Your task to perform on an android device: Search for sushi restaurants on Maps Image 0: 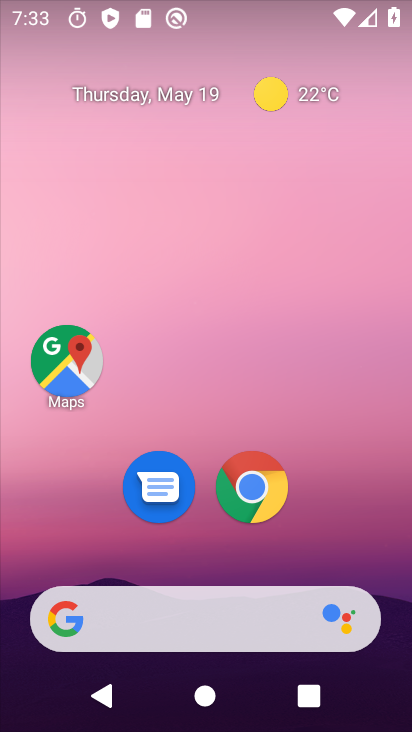
Step 0: press home button
Your task to perform on an android device: Search for sushi restaurants on Maps Image 1: 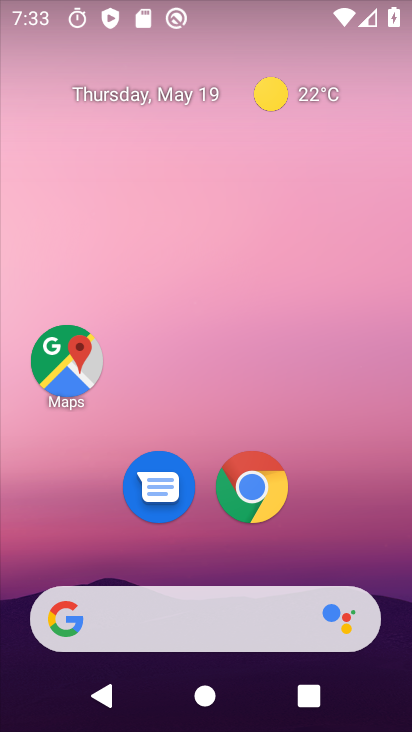
Step 1: click (62, 374)
Your task to perform on an android device: Search for sushi restaurants on Maps Image 2: 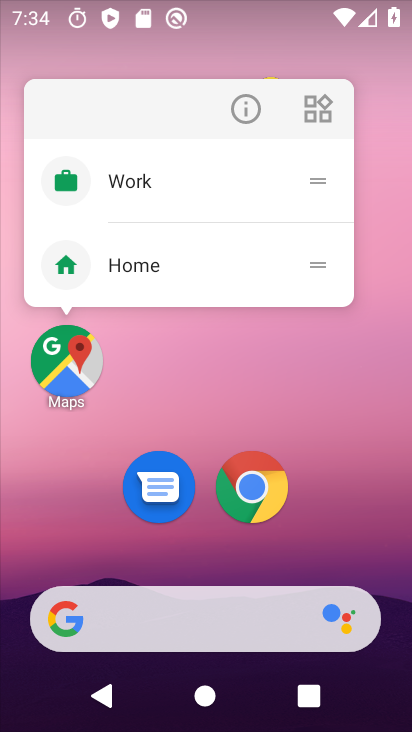
Step 2: click (62, 376)
Your task to perform on an android device: Search for sushi restaurants on Maps Image 3: 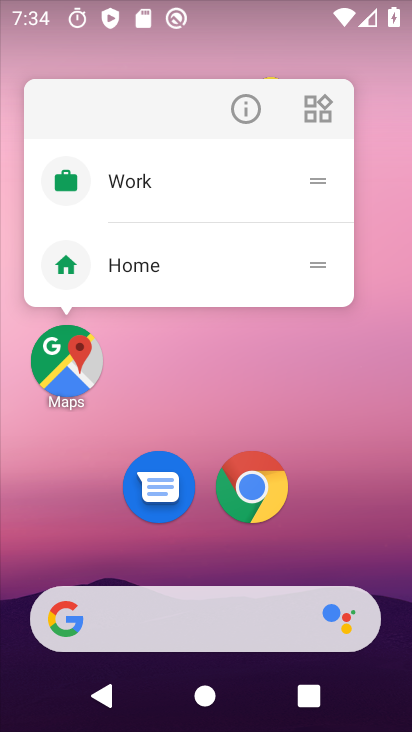
Step 3: click (66, 376)
Your task to perform on an android device: Search for sushi restaurants on Maps Image 4: 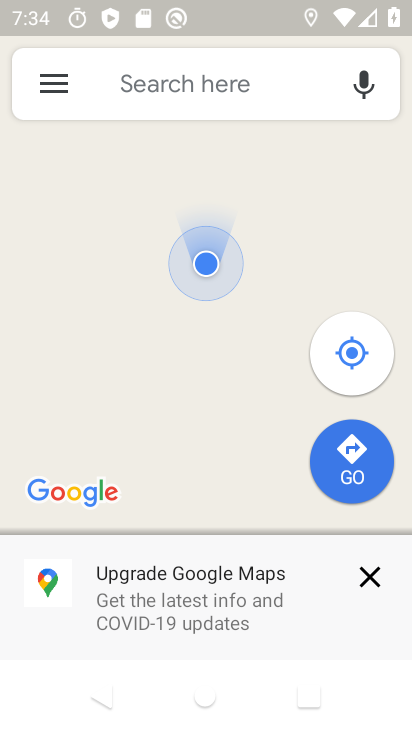
Step 4: click (154, 80)
Your task to perform on an android device: Search for sushi restaurants on Maps Image 5: 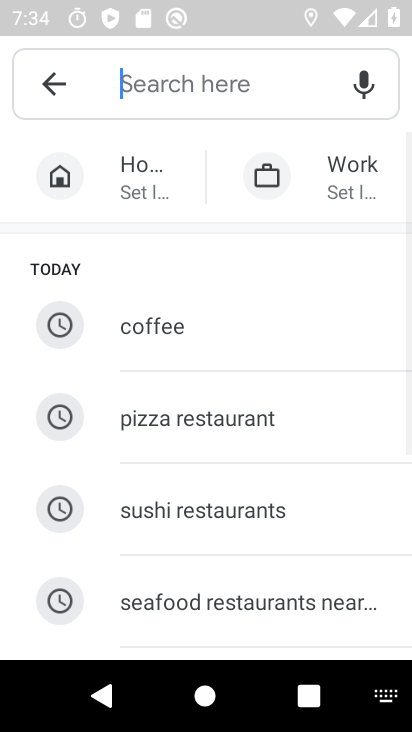
Step 5: click (187, 509)
Your task to perform on an android device: Search for sushi restaurants on Maps Image 6: 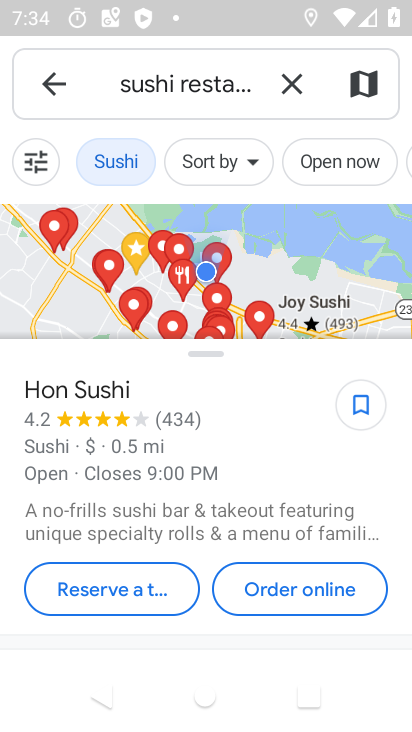
Step 6: task complete